Your task to perform on an android device: Go to Android settings Image 0: 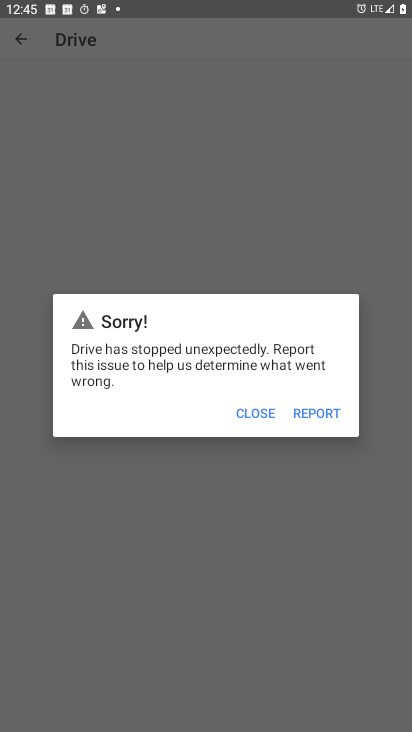
Step 0: press home button
Your task to perform on an android device: Go to Android settings Image 1: 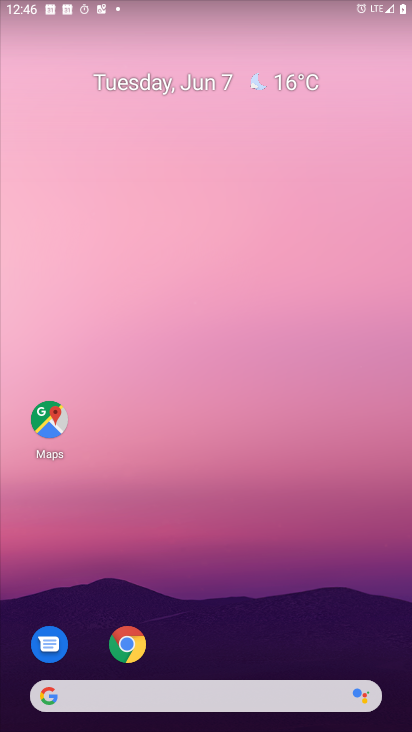
Step 1: drag from (37, 591) to (267, 167)
Your task to perform on an android device: Go to Android settings Image 2: 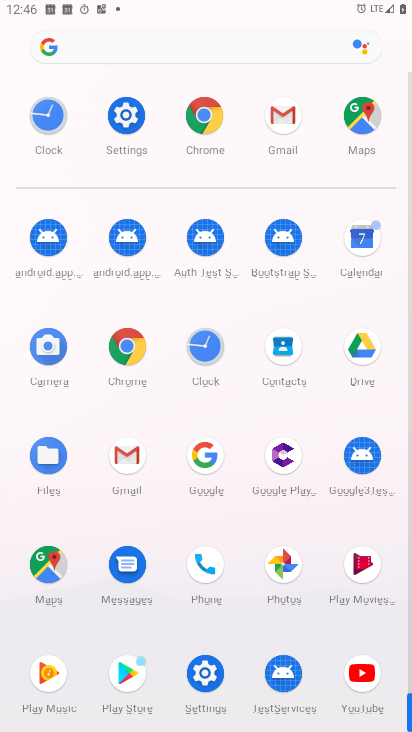
Step 2: click (125, 107)
Your task to perform on an android device: Go to Android settings Image 3: 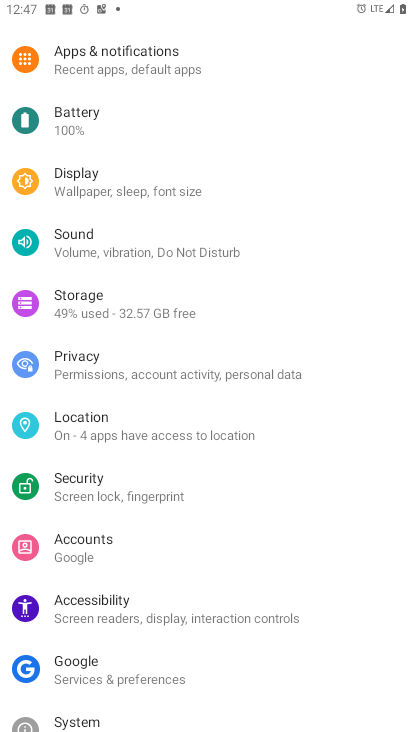
Step 3: drag from (139, 75) to (181, 590)
Your task to perform on an android device: Go to Android settings Image 4: 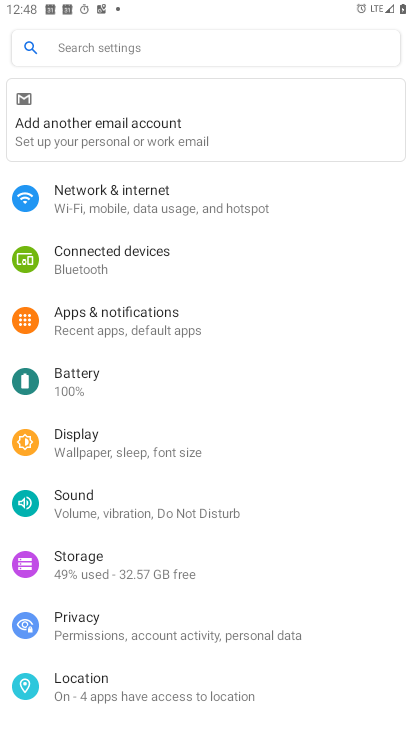
Step 4: drag from (57, 681) to (284, 152)
Your task to perform on an android device: Go to Android settings Image 5: 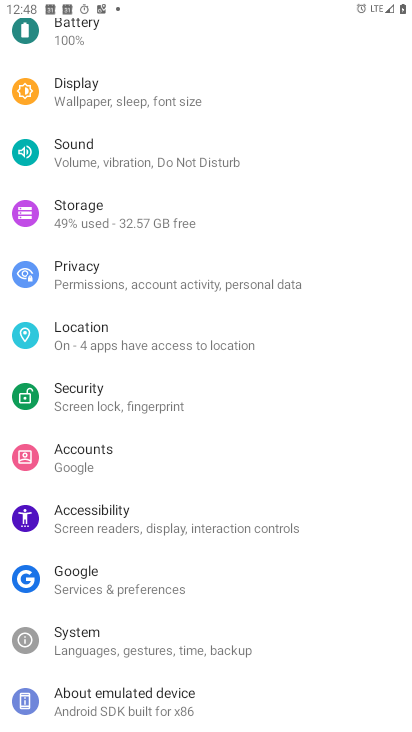
Step 5: drag from (36, 682) to (304, 236)
Your task to perform on an android device: Go to Android settings Image 6: 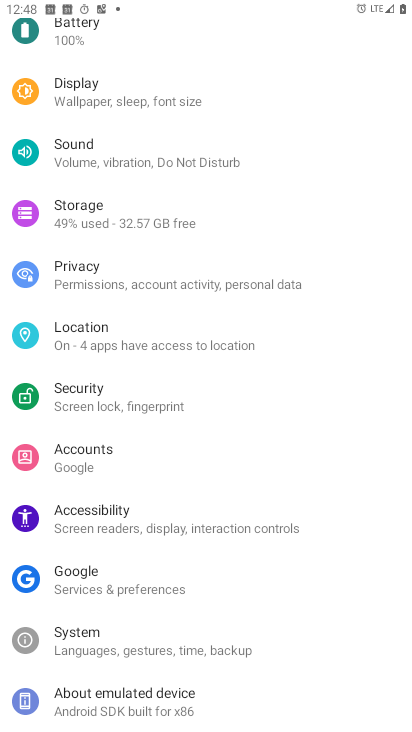
Step 6: click (160, 697)
Your task to perform on an android device: Go to Android settings Image 7: 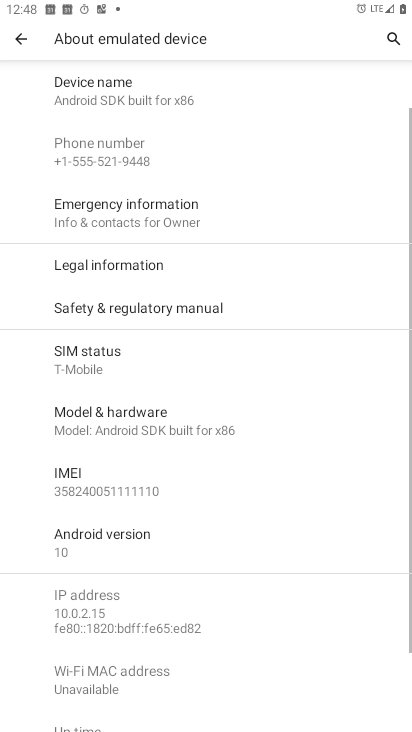
Step 7: click (99, 530)
Your task to perform on an android device: Go to Android settings Image 8: 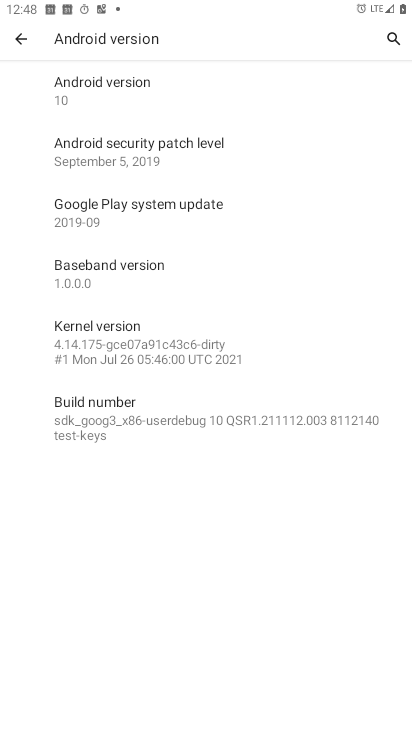
Step 8: task complete